Your task to perform on an android device: Is it going to rain this weekend? Image 0: 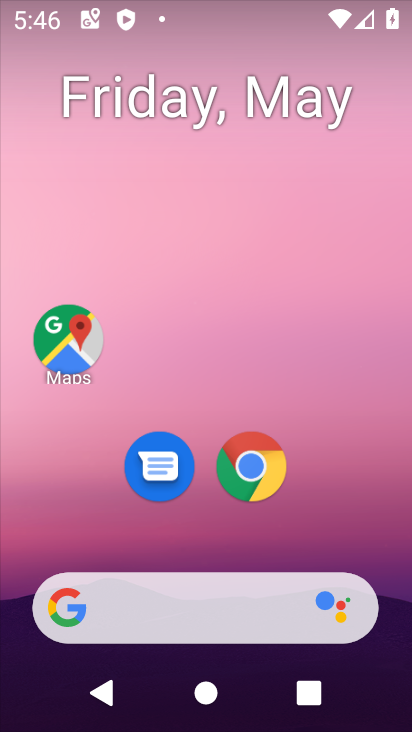
Step 0: drag from (329, 503) to (250, 34)
Your task to perform on an android device: Is it going to rain this weekend? Image 1: 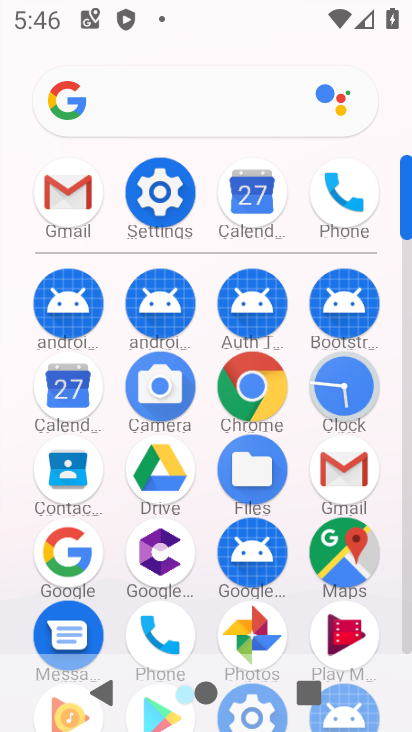
Step 1: drag from (22, 595) to (2, 197)
Your task to perform on an android device: Is it going to rain this weekend? Image 2: 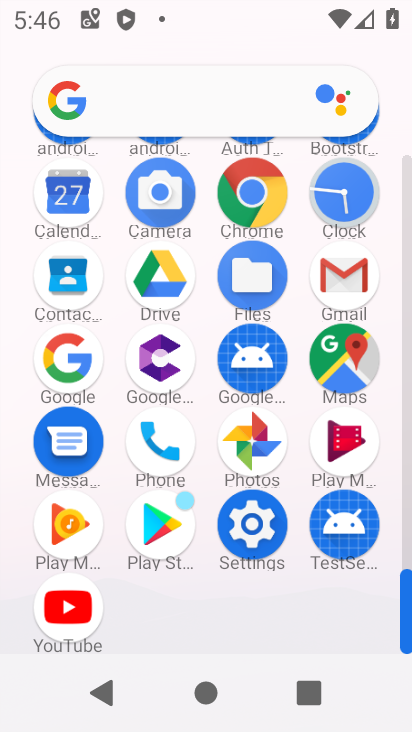
Step 2: click (251, 190)
Your task to perform on an android device: Is it going to rain this weekend? Image 3: 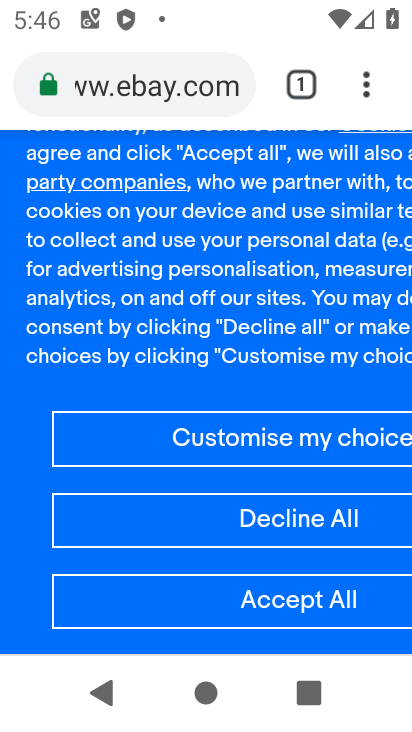
Step 3: click (146, 87)
Your task to perform on an android device: Is it going to rain this weekend? Image 4: 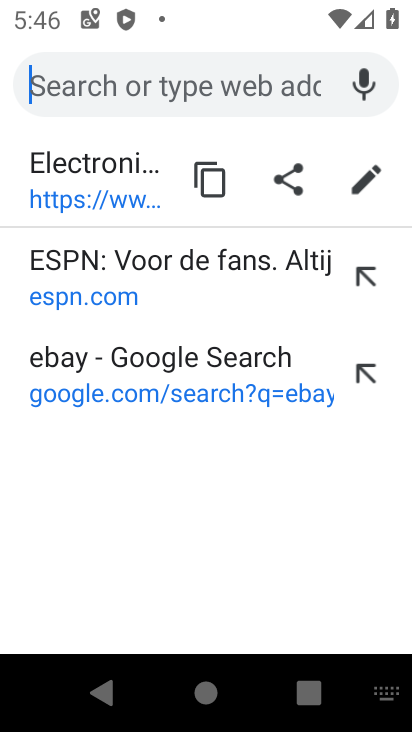
Step 4: type "Is it going to rain this weekend?"
Your task to perform on an android device: Is it going to rain this weekend? Image 5: 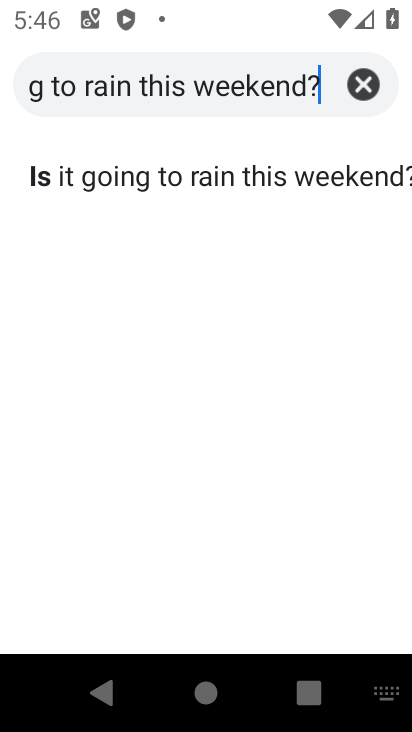
Step 5: type ""
Your task to perform on an android device: Is it going to rain this weekend? Image 6: 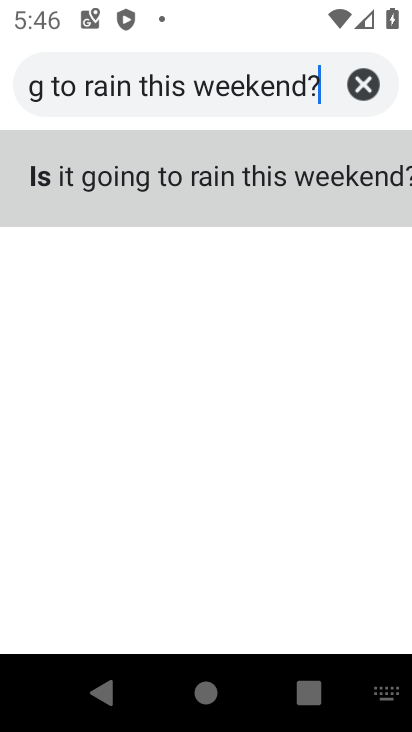
Step 6: click (165, 173)
Your task to perform on an android device: Is it going to rain this weekend? Image 7: 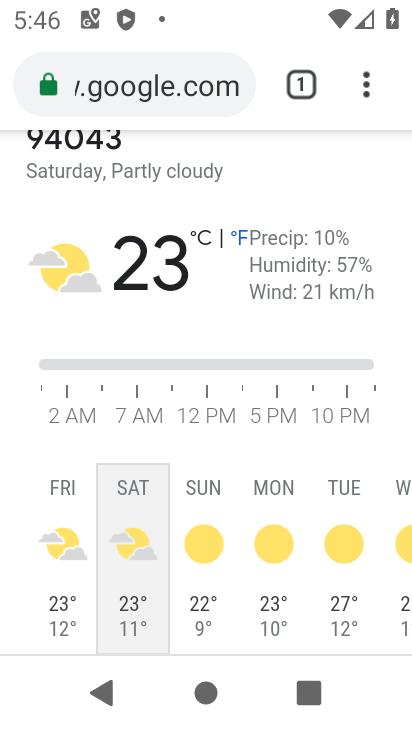
Step 7: task complete